Your task to perform on an android device: add a contact in the contacts app Image 0: 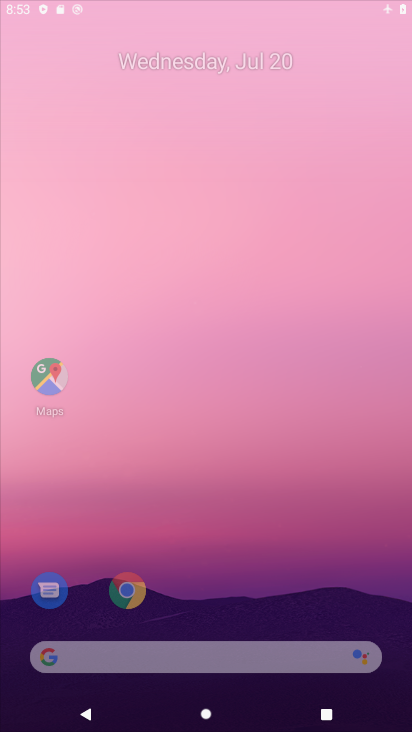
Step 0: press back button
Your task to perform on an android device: add a contact in the contacts app Image 1: 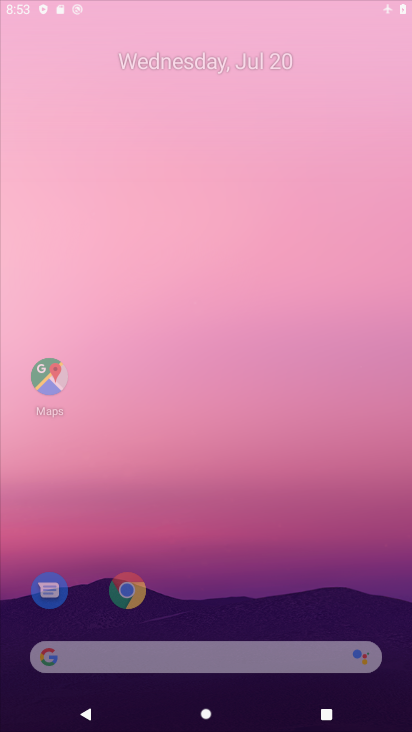
Step 1: drag from (155, 296) to (263, 119)
Your task to perform on an android device: add a contact in the contacts app Image 2: 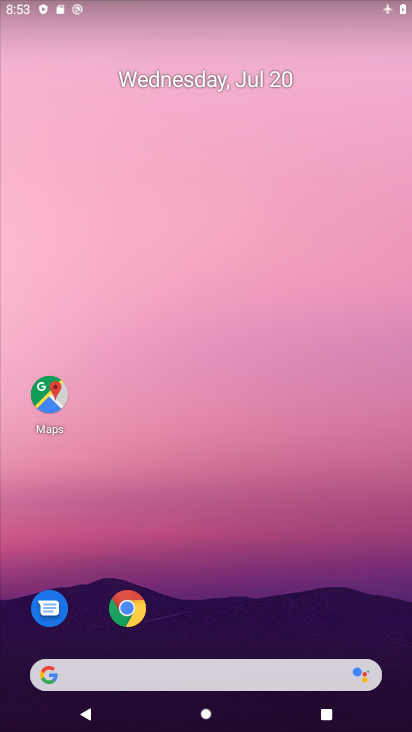
Step 2: drag from (194, 568) to (193, 76)
Your task to perform on an android device: add a contact in the contacts app Image 3: 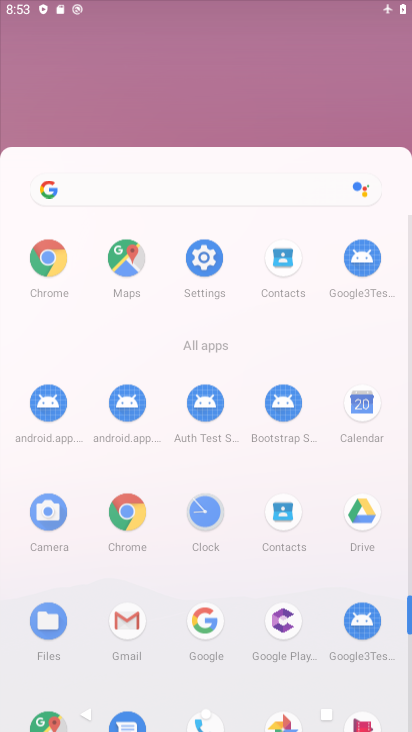
Step 3: drag from (230, 427) to (220, 22)
Your task to perform on an android device: add a contact in the contacts app Image 4: 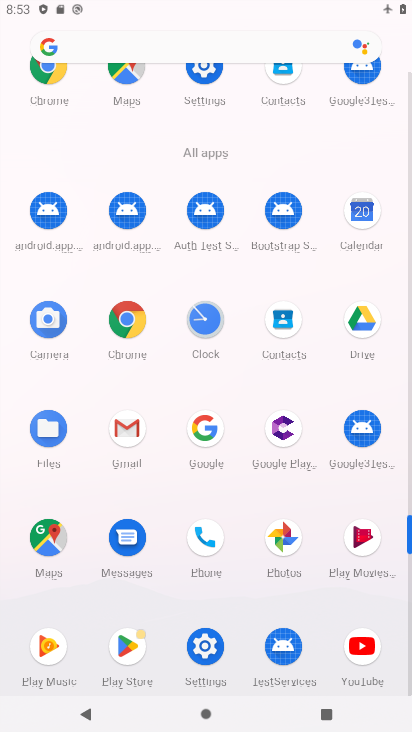
Step 4: click (130, 327)
Your task to perform on an android device: add a contact in the contacts app Image 5: 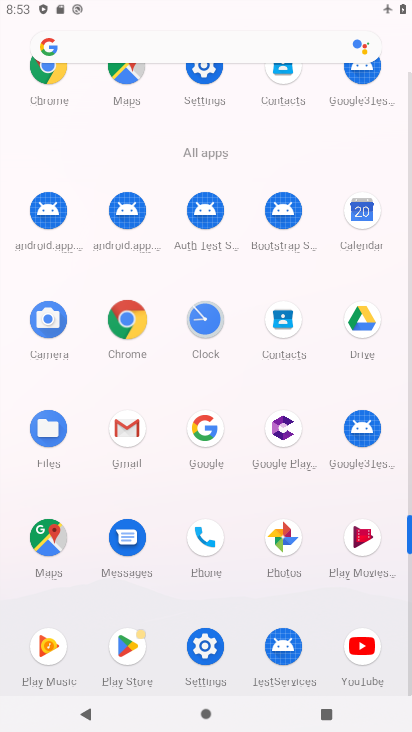
Step 5: click (129, 328)
Your task to perform on an android device: add a contact in the contacts app Image 6: 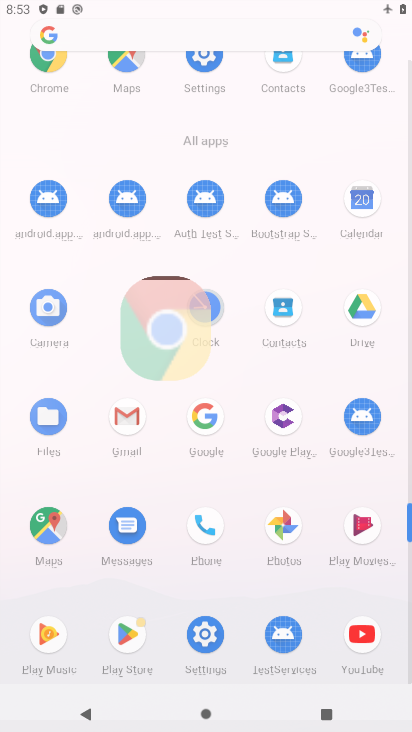
Step 6: click (134, 326)
Your task to perform on an android device: add a contact in the contacts app Image 7: 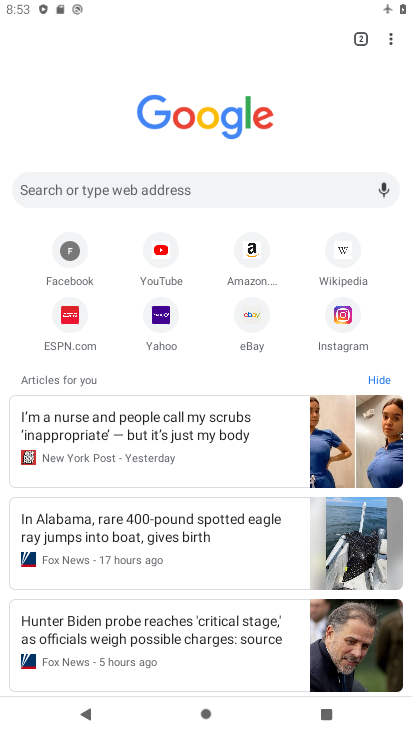
Step 7: press back button
Your task to perform on an android device: add a contact in the contacts app Image 8: 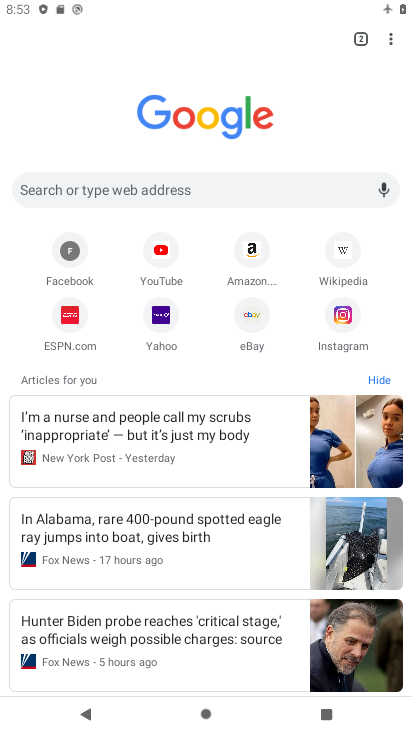
Step 8: press back button
Your task to perform on an android device: add a contact in the contacts app Image 9: 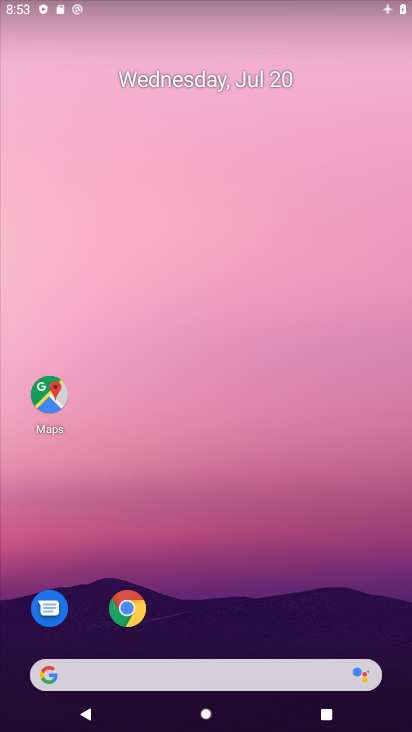
Step 9: drag from (237, 584) to (183, 111)
Your task to perform on an android device: add a contact in the contacts app Image 10: 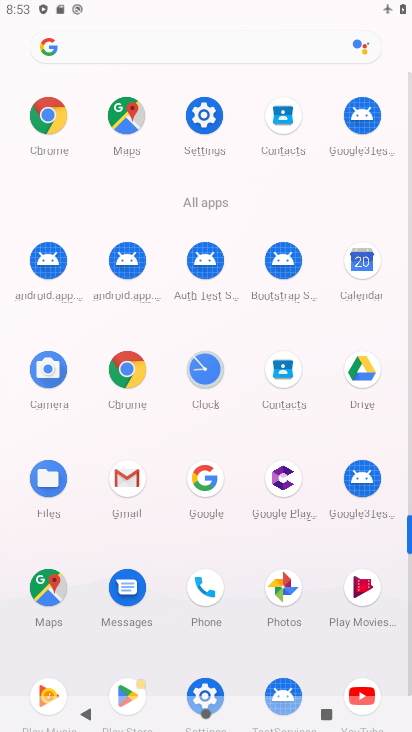
Step 10: click (281, 368)
Your task to perform on an android device: add a contact in the contacts app Image 11: 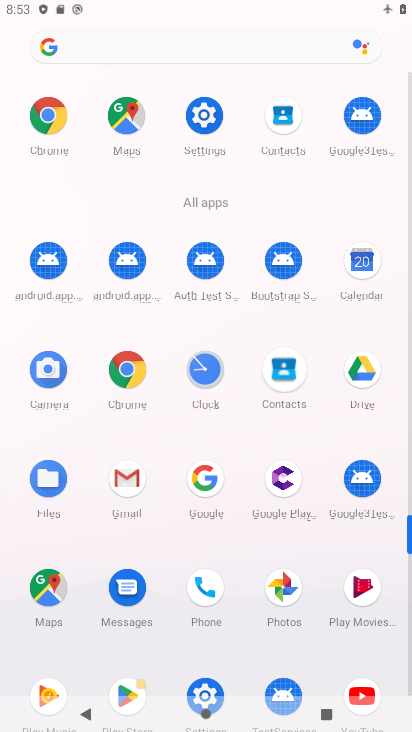
Step 11: click (282, 367)
Your task to perform on an android device: add a contact in the contacts app Image 12: 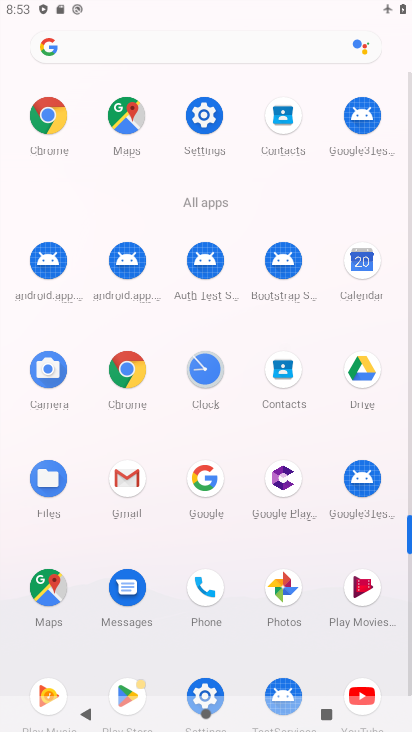
Step 12: click (279, 363)
Your task to perform on an android device: add a contact in the contacts app Image 13: 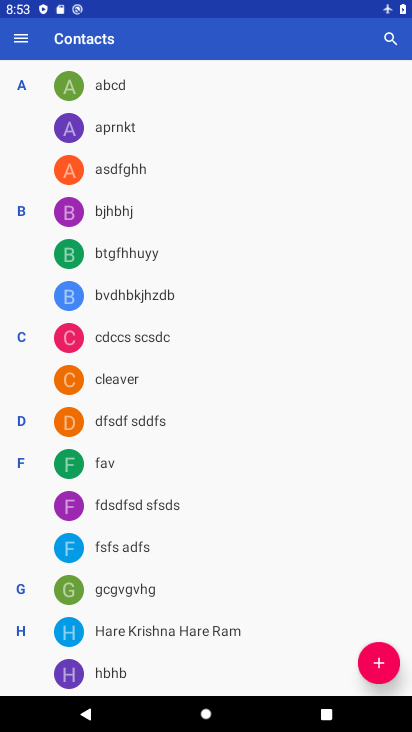
Step 13: click (382, 657)
Your task to perform on an android device: add a contact in the contacts app Image 14: 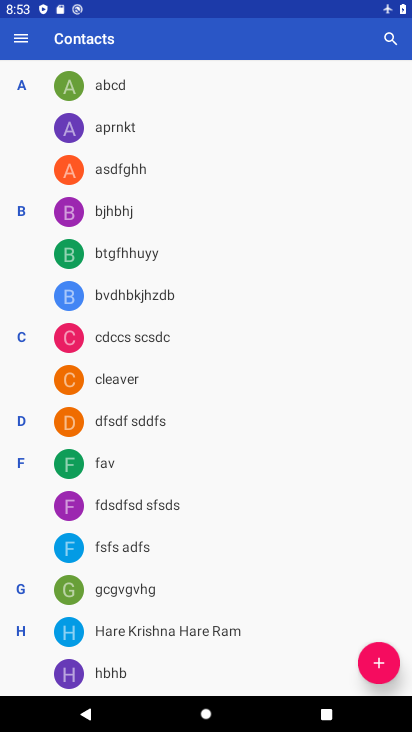
Step 14: click (384, 661)
Your task to perform on an android device: add a contact in the contacts app Image 15: 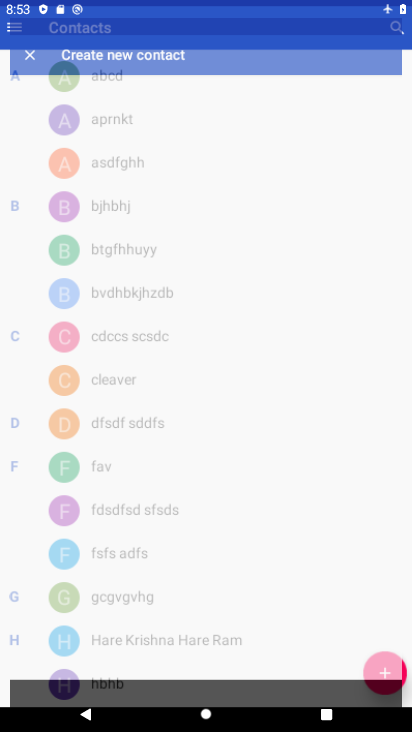
Step 15: click (385, 662)
Your task to perform on an android device: add a contact in the contacts app Image 16: 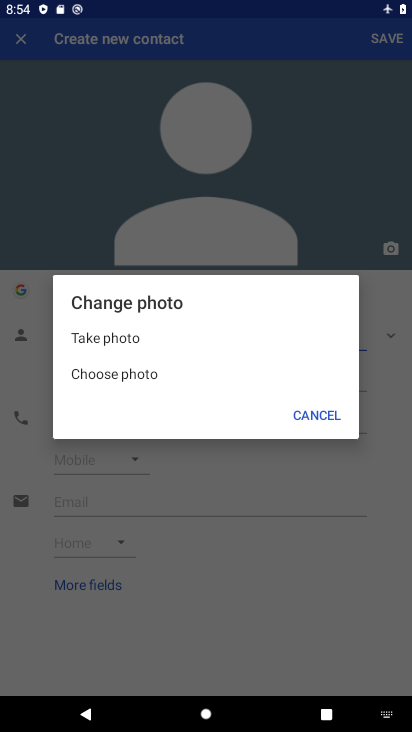
Step 16: click (308, 412)
Your task to perform on an android device: add a contact in the contacts app Image 17: 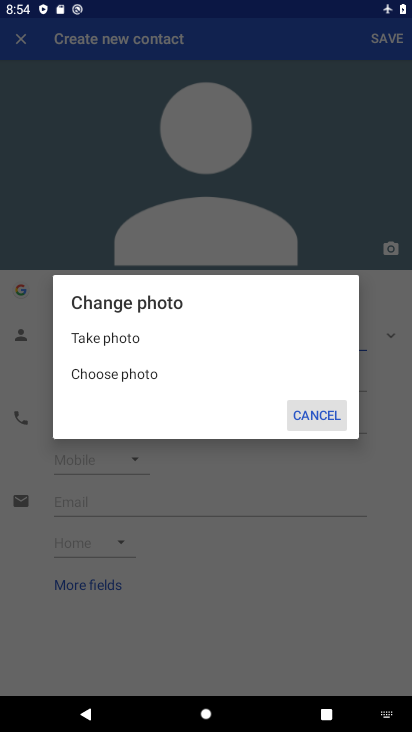
Step 17: click (313, 414)
Your task to perform on an android device: add a contact in the contacts app Image 18: 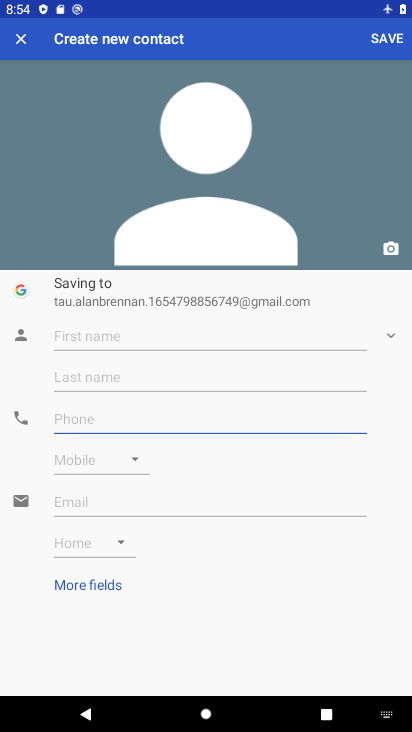
Step 18: type "7559843789"
Your task to perform on an android device: add a contact in the contacts app Image 19: 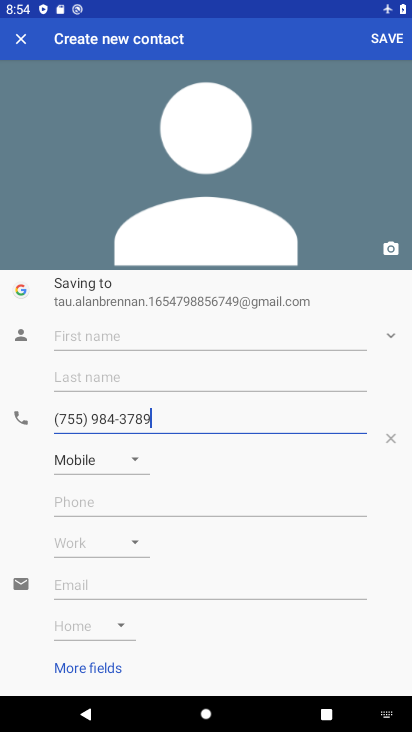
Step 19: click (73, 335)
Your task to perform on an android device: add a contact in the contacts app Image 20: 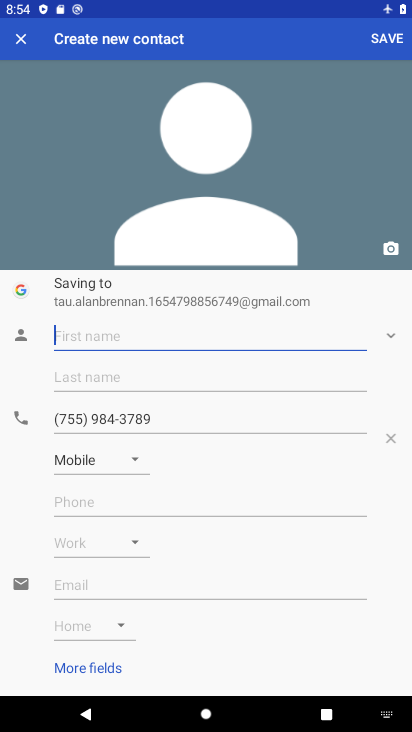
Step 20: click (73, 335)
Your task to perform on an android device: add a contact in the contacts app Image 21: 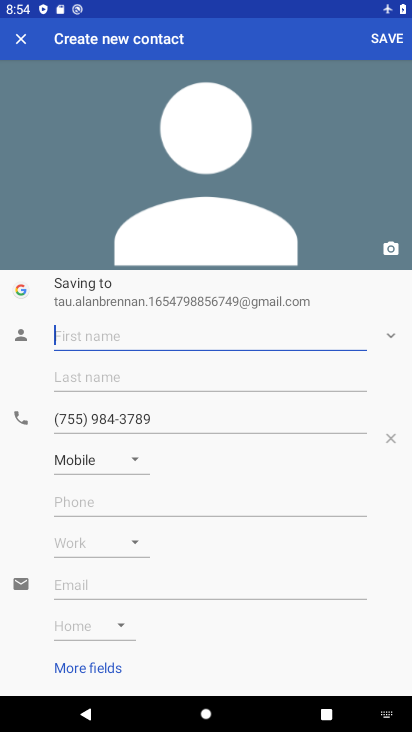
Step 21: click (73, 335)
Your task to perform on an android device: add a contact in the contacts app Image 22: 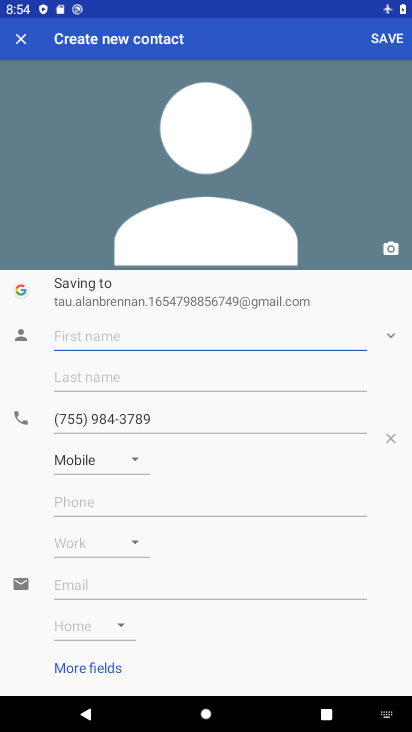
Step 22: type "bchdbbvjbjv"
Your task to perform on an android device: add a contact in the contacts app Image 23: 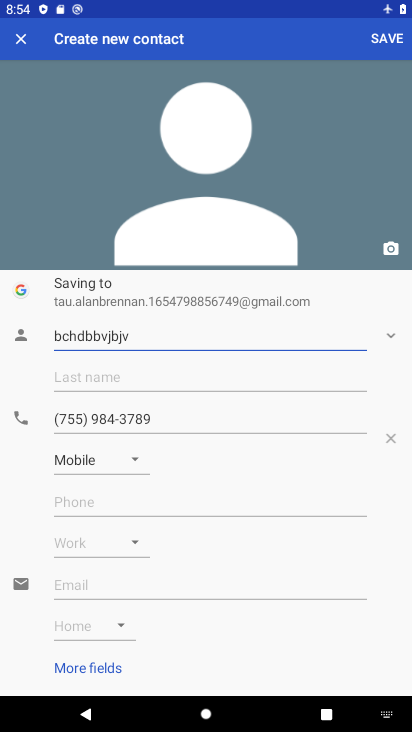
Step 23: click (383, 30)
Your task to perform on an android device: add a contact in the contacts app Image 24: 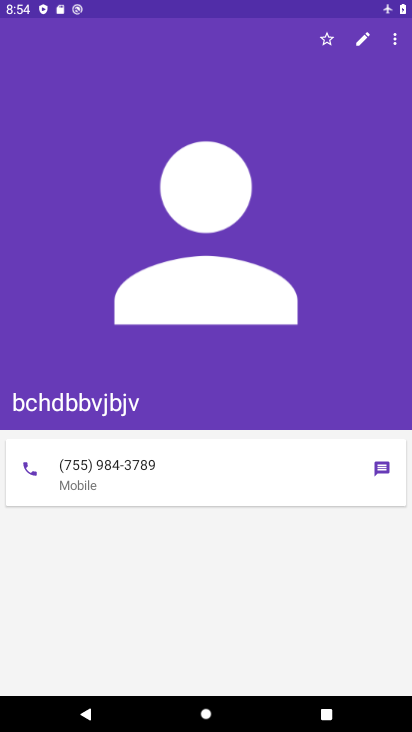
Step 24: task complete